Your task to perform on an android device: Search for flights from Helsinki to Tokyo Image 0: 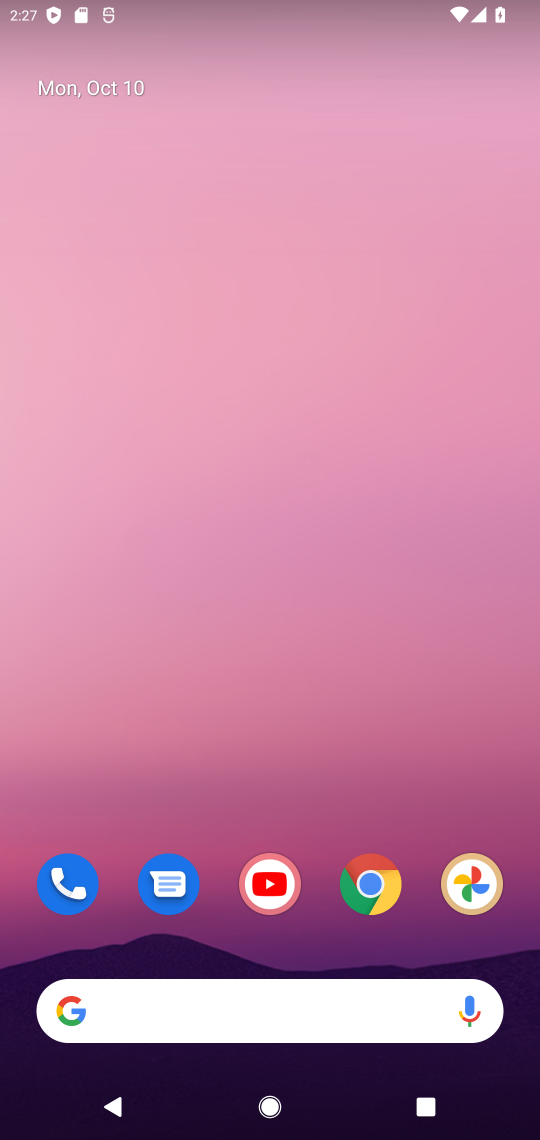
Step 0: click (288, 1006)
Your task to perform on an android device: Search for flights from Helsinki to Tokyo Image 1: 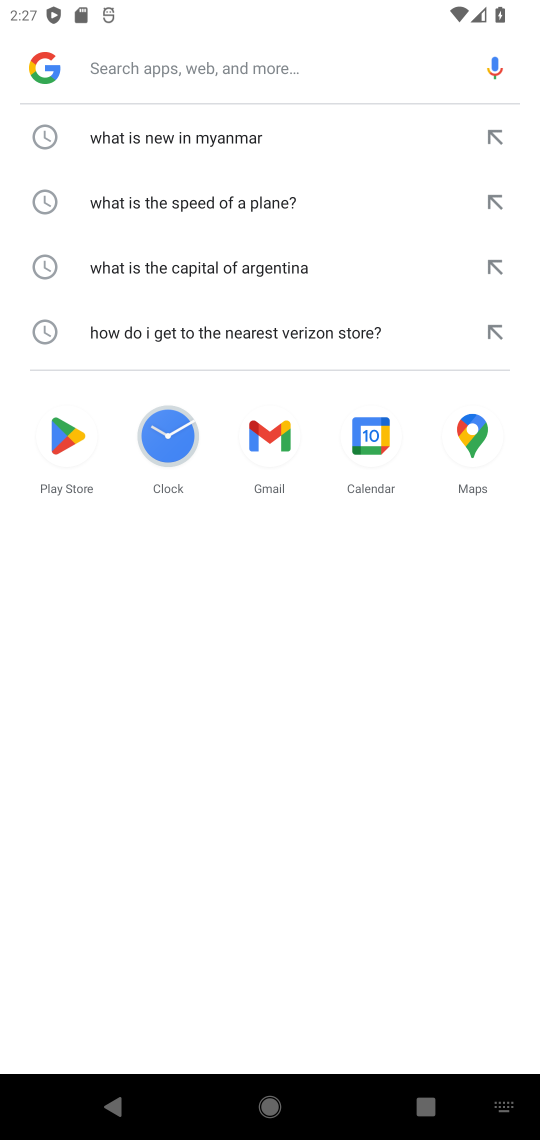
Step 1: type "flights from Helsinki to Tokyo"
Your task to perform on an android device: Search for flights from Helsinki to Tokyo Image 2: 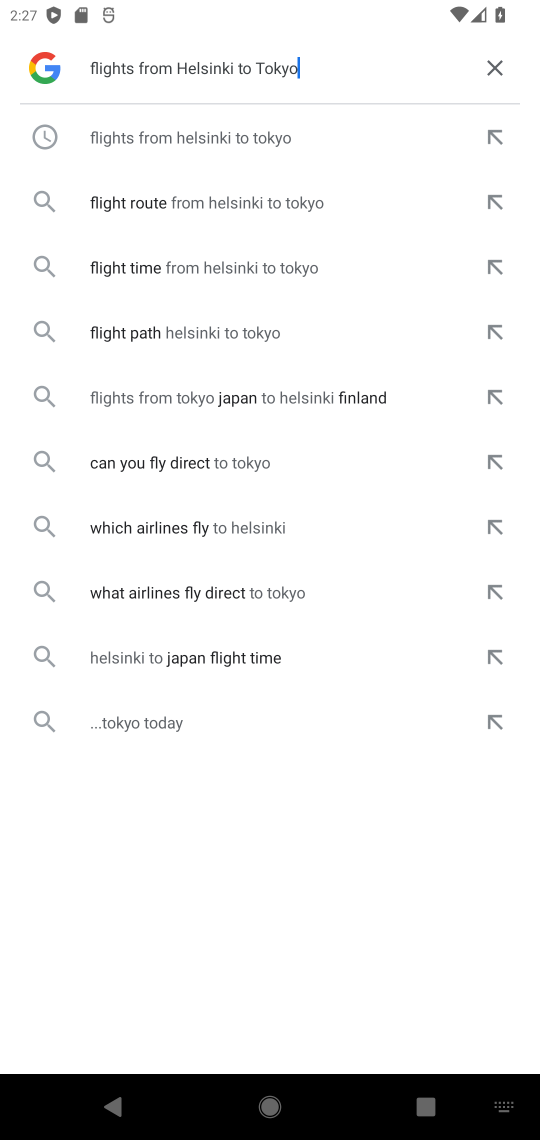
Step 2: click (227, 133)
Your task to perform on an android device: Search for flights from Helsinki to Tokyo Image 3: 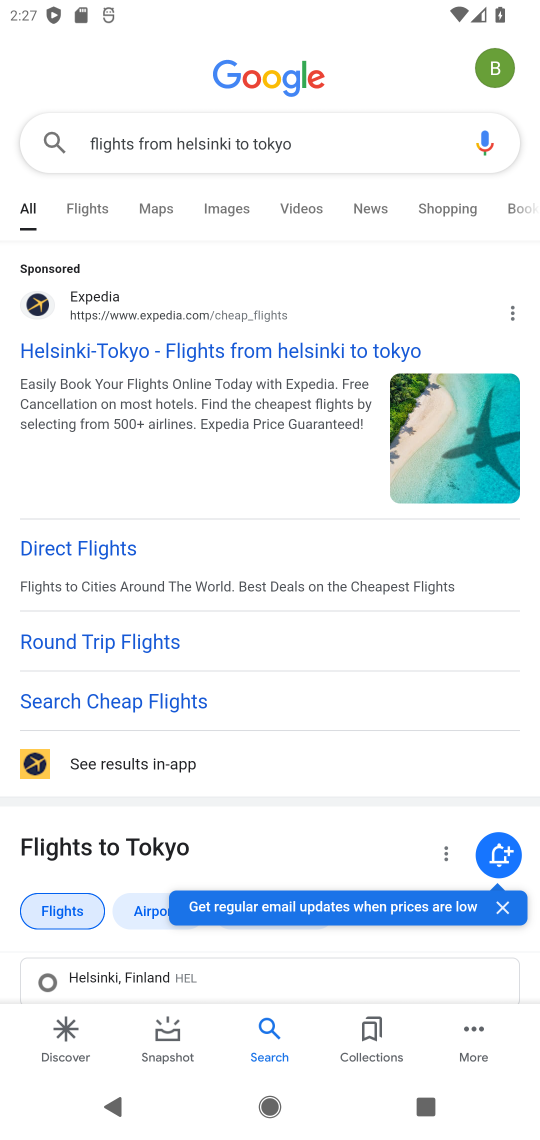
Step 3: click (150, 342)
Your task to perform on an android device: Search for flights from Helsinki to Tokyo Image 4: 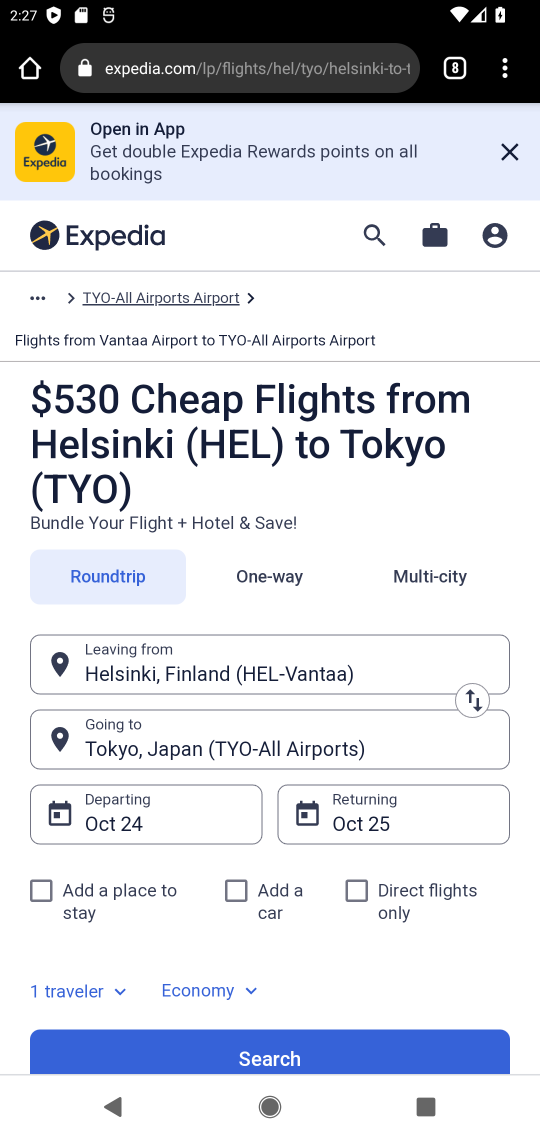
Step 4: click (270, 1054)
Your task to perform on an android device: Search for flights from Helsinki to Tokyo Image 5: 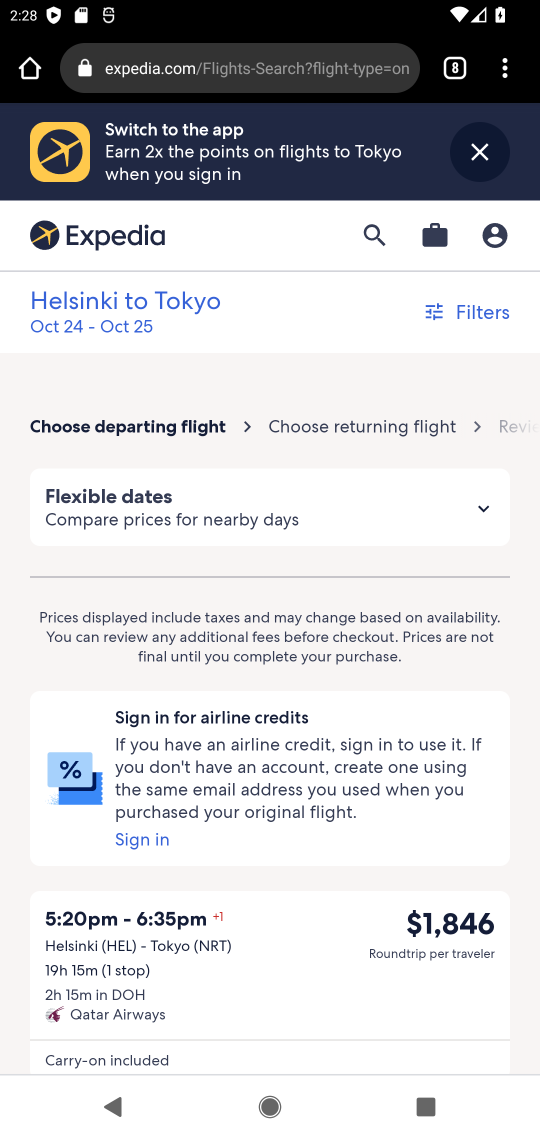
Step 5: task complete